Your task to perform on an android device: change the clock display to analog Image 0: 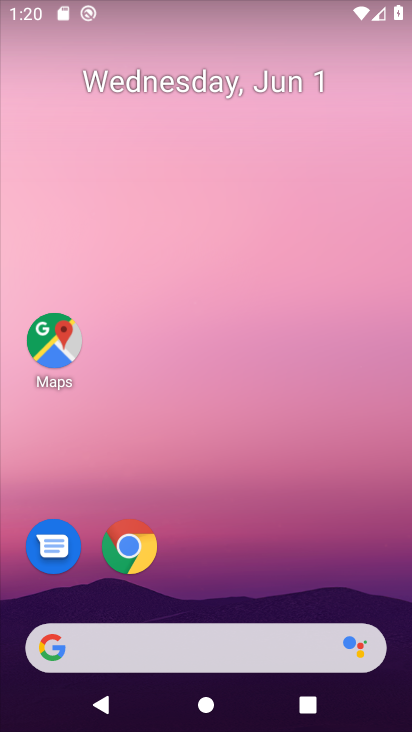
Step 0: drag from (119, 499) to (102, 262)
Your task to perform on an android device: change the clock display to analog Image 1: 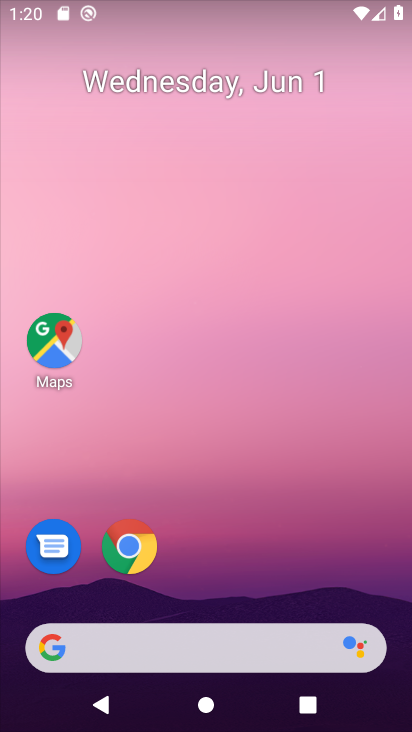
Step 1: drag from (155, 723) to (254, 3)
Your task to perform on an android device: change the clock display to analog Image 2: 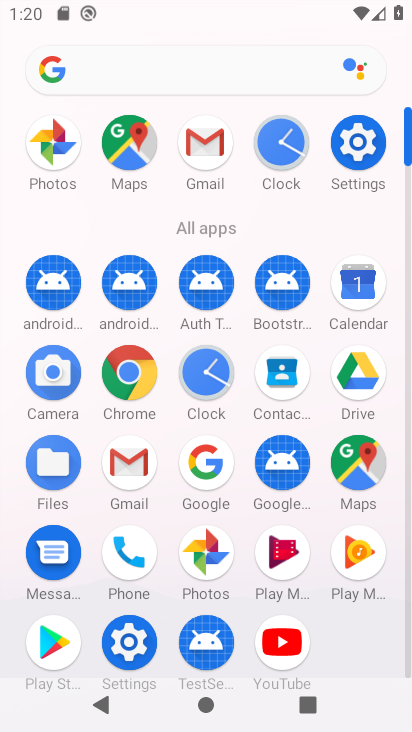
Step 2: click (281, 147)
Your task to perform on an android device: change the clock display to analog Image 3: 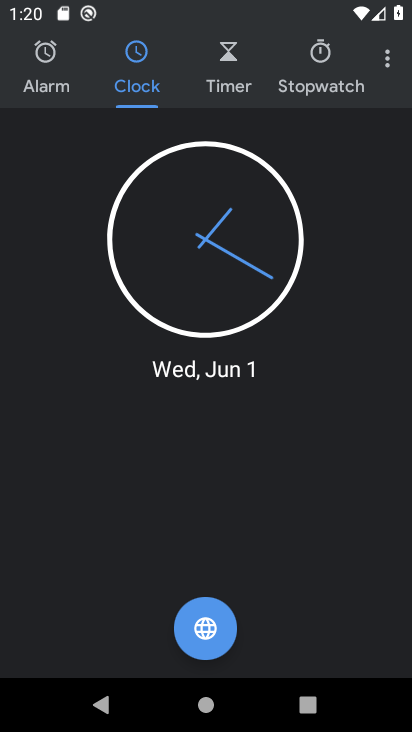
Step 3: click (390, 67)
Your task to perform on an android device: change the clock display to analog Image 4: 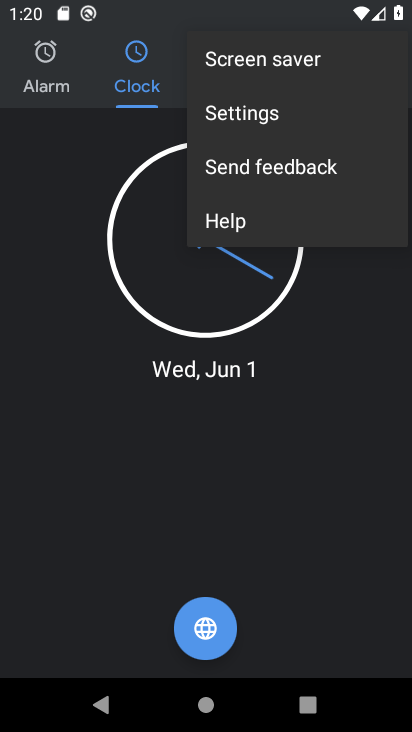
Step 4: click (250, 124)
Your task to perform on an android device: change the clock display to analog Image 5: 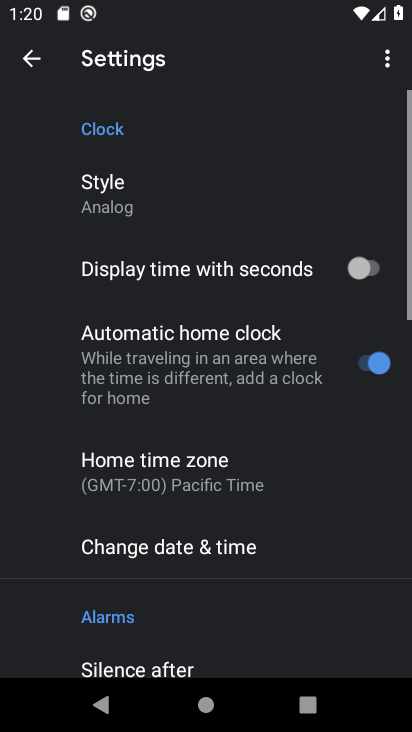
Step 5: click (124, 207)
Your task to perform on an android device: change the clock display to analog Image 6: 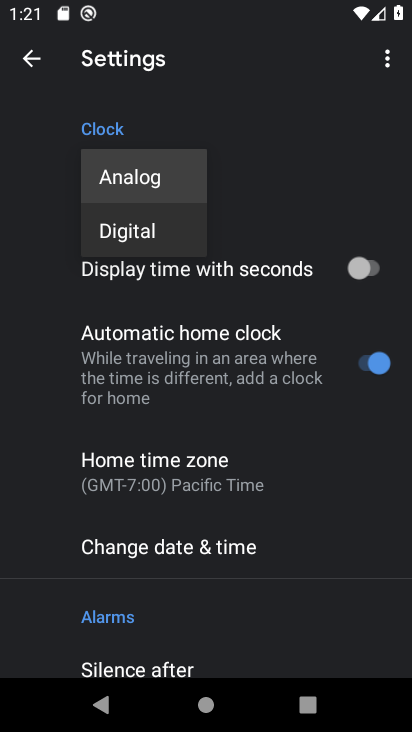
Step 6: task complete